Your task to perform on an android device: clear all cookies in the chrome app Image 0: 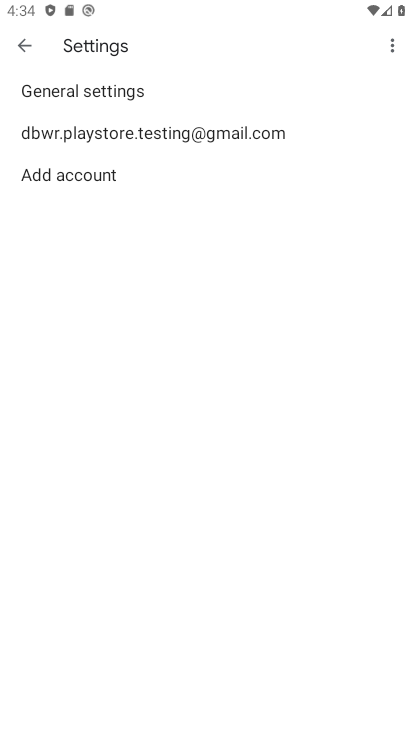
Step 0: press home button
Your task to perform on an android device: clear all cookies in the chrome app Image 1: 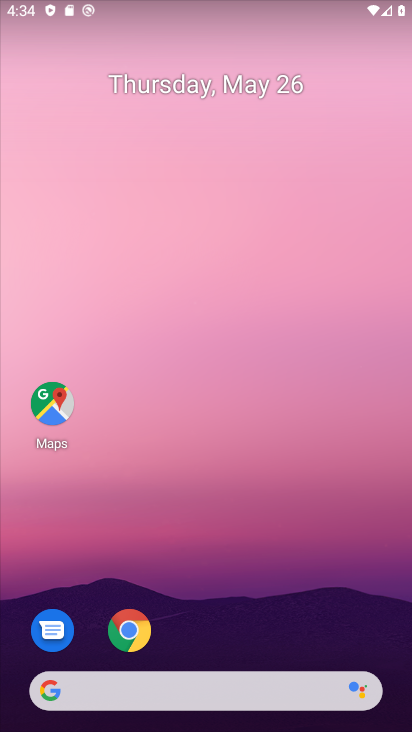
Step 1: click (133, 639)
Your task to perform on an android device: clear all cookies in the chrome app Image 2: 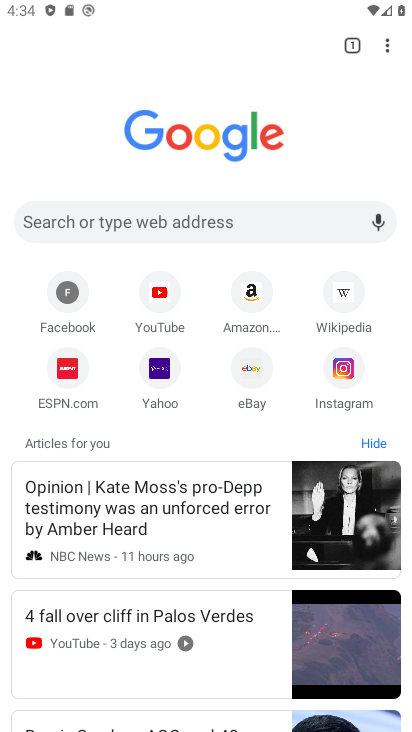
Step 2: click (385, 49)
Your task to perform on an android device: clear all cookies in the chrome app Image 3: 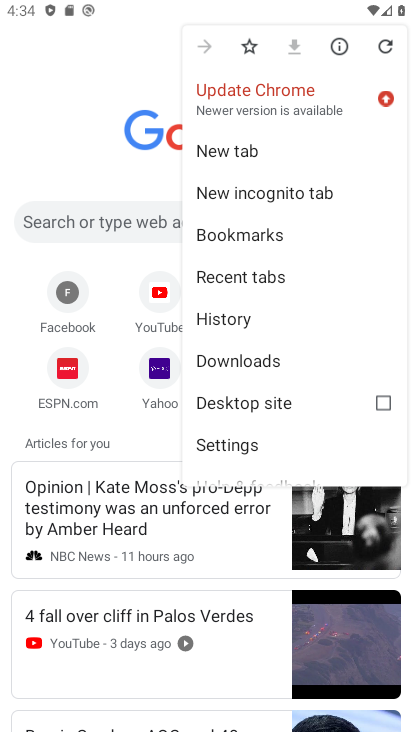
Step 3: click (235, 446)
Your task to perform on an android device: clear all cookies in the chrome app Image 4: 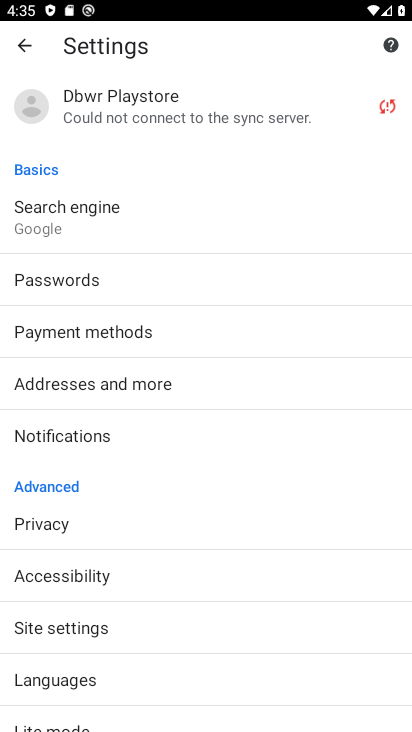
Step 4: click (47, 524)
Your task to perform on an android device: clear all cookies in the chrome app Image 5: 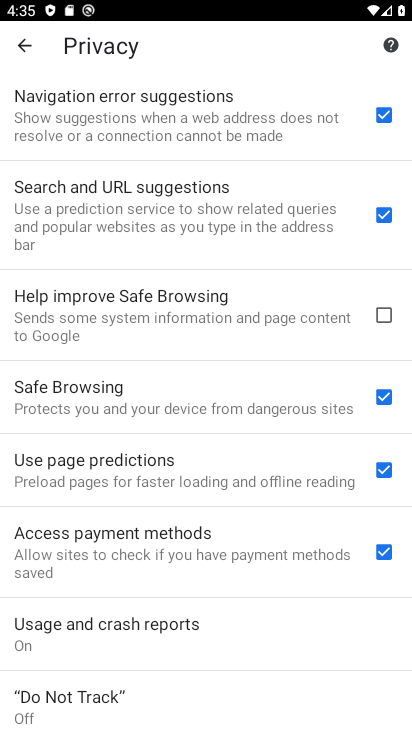
Step 5: drag from (137, 704) to (274, 141)
Your task to perform on an android device: clear all cookies in the chrome app Image 6: 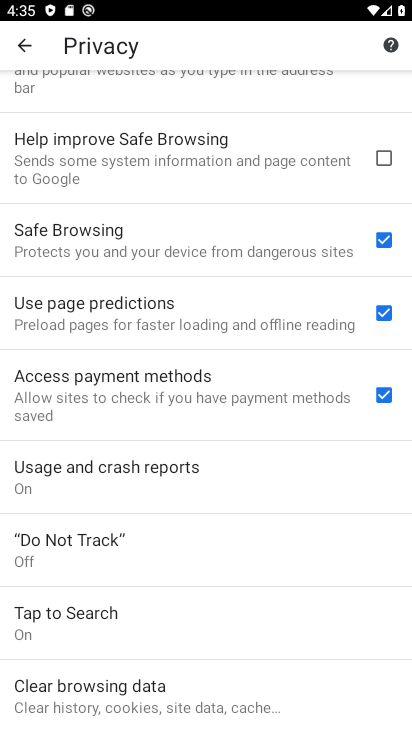
Step 6: click (162, 681)
Your task to perform on an android device: clear all cookies in the chrome app Image 7: 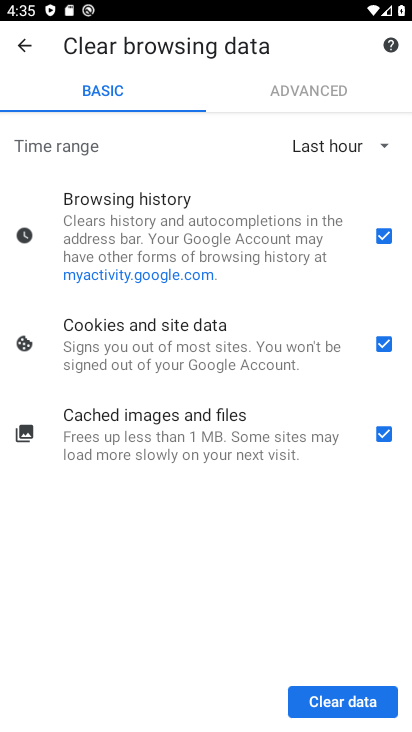
Step 7: click (380, 238)
Your task to perform on an android device: clear all cookies in the chrome app Image 8: 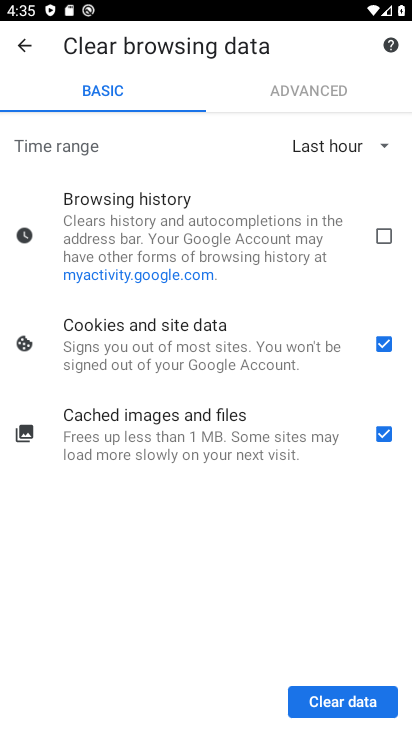
Step 8: click (379, 434)
Your task to perform on an android device: clear all cookies in the chrome app Image 9: 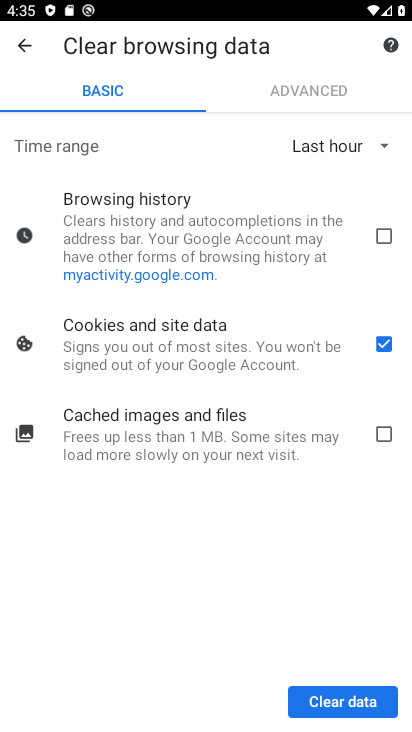
Step 9: click (350, 698)
Your task to perform on an android device: clear all cookies in the chrome app Image 10: 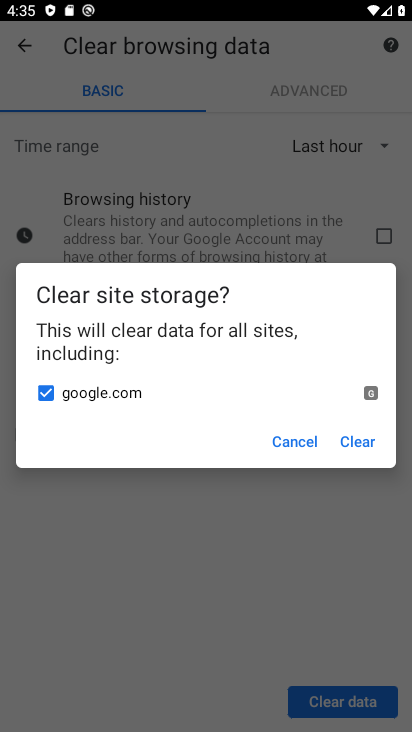
Step 10: click (372, 435)
Your task to perform on an android device: clear all cookies in the chrome app Image 11: 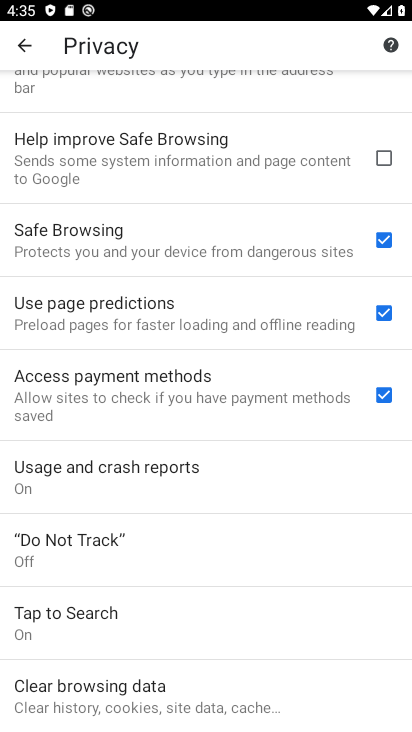
Step 11: task complete